Your task to perform on an android device: Is it going to rain today? Image 0: 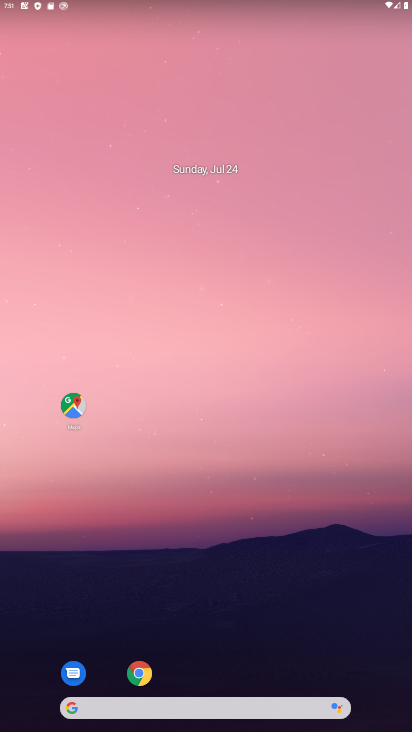
Step 0: drag from (176, 669) to (232, 394)
Your task to perform on an android device: Is it going to rain today? Image 1: 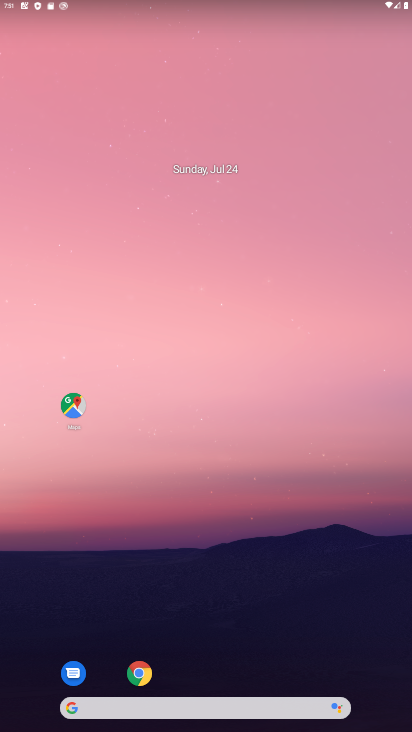
Step 1: drag from (216, 688) to (410, 24)
Your task to perform on an android device: Is it going to rain today? Image 2: 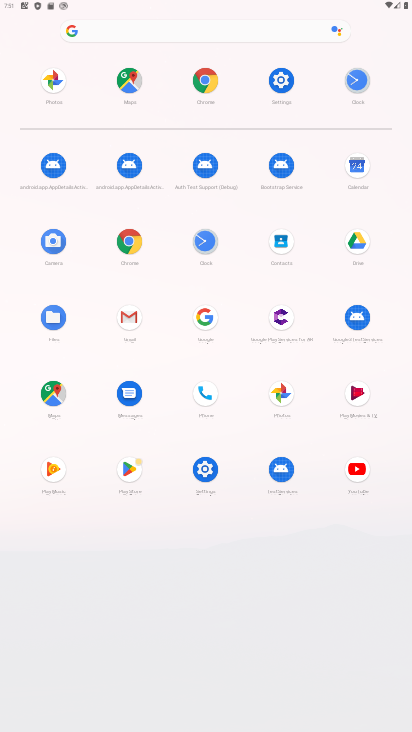
Step 2: click (158, 36)
Your task to perform on an android device: Is it going to rain today? Image 3: 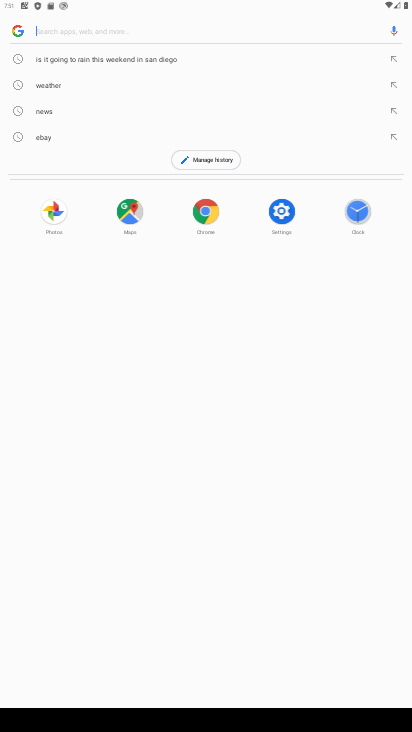
Step 3: type "Is it going to rain today?"
Your task to perform on an android device: Is it going to rain today? Image 4: 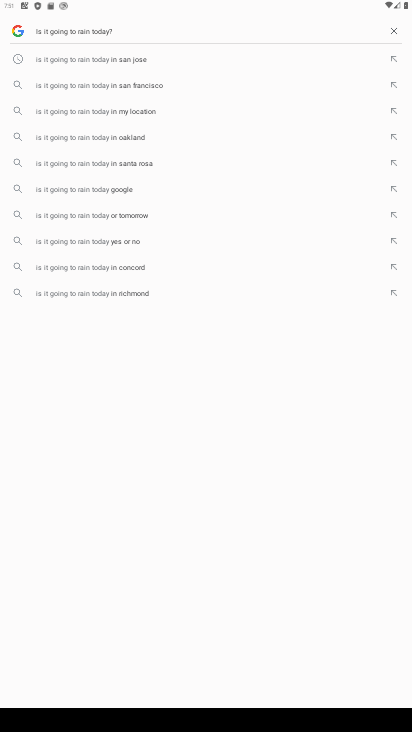
Step 4: type ""
Your task to perform on an android device: Is it going to rain today? Image 5: 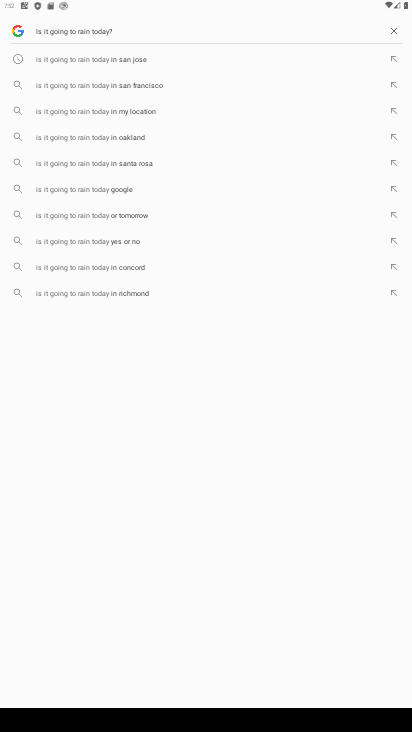
Step 5: click (110, 62)
Your task to perform on an android device: Is it going to rain today? Image 6: 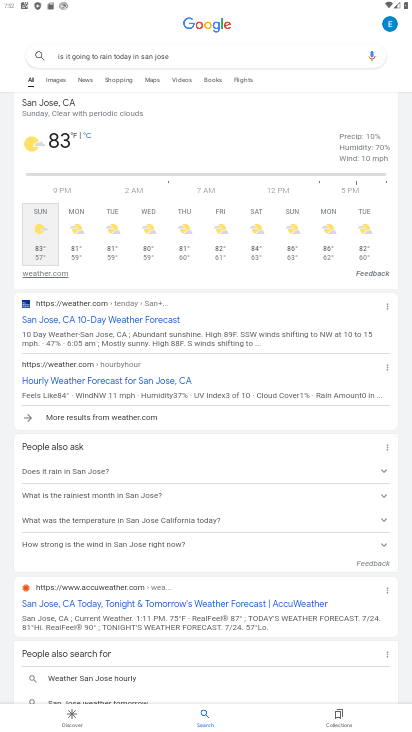
Step 6: task complete